Your task to perform on an android device: open app "Speedtest by Ookla" (install if not already installed) and go to login screen Image 0: 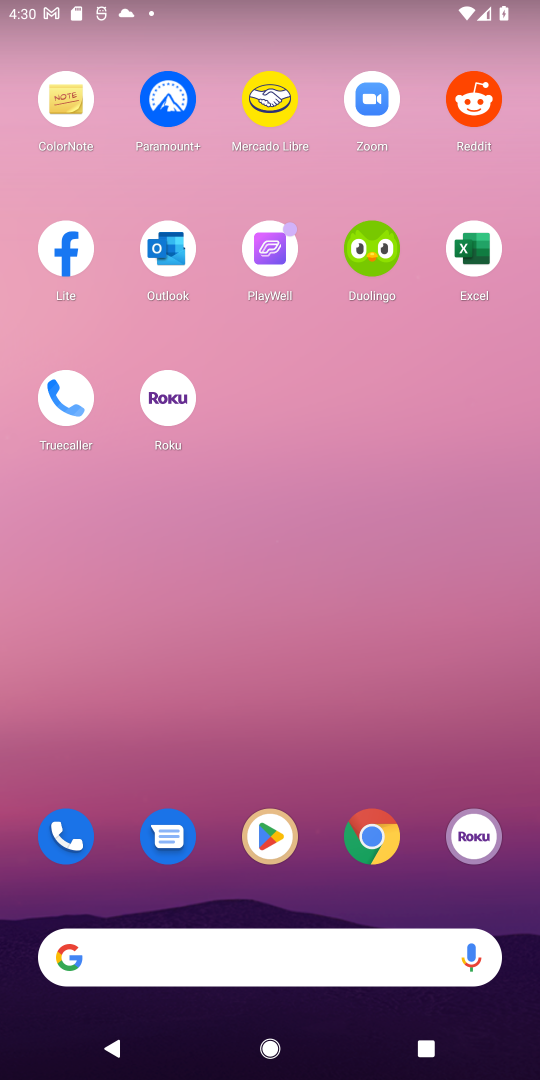
Step 0: drag from (336, 887) to (351, 122)
Your task to perform on an android device: open app "Speedtest by Ookla" (install if not already installed) and go to login screen Image 1: 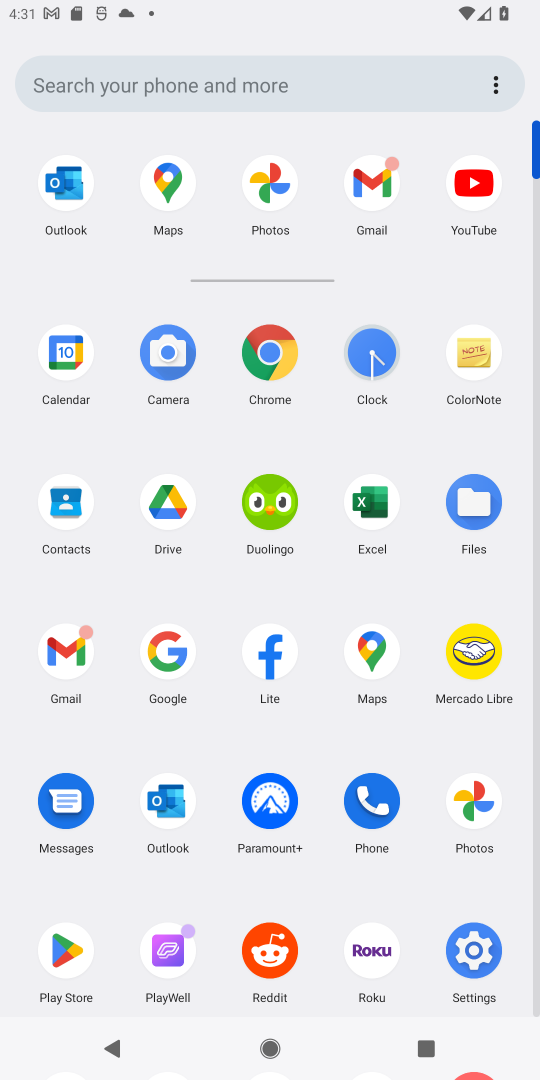
Step 1: click (54, 936)
Your task to perform on an android device: open app "Speedtest by Ookla" (install if not already installed) and go to login screen Image 2: 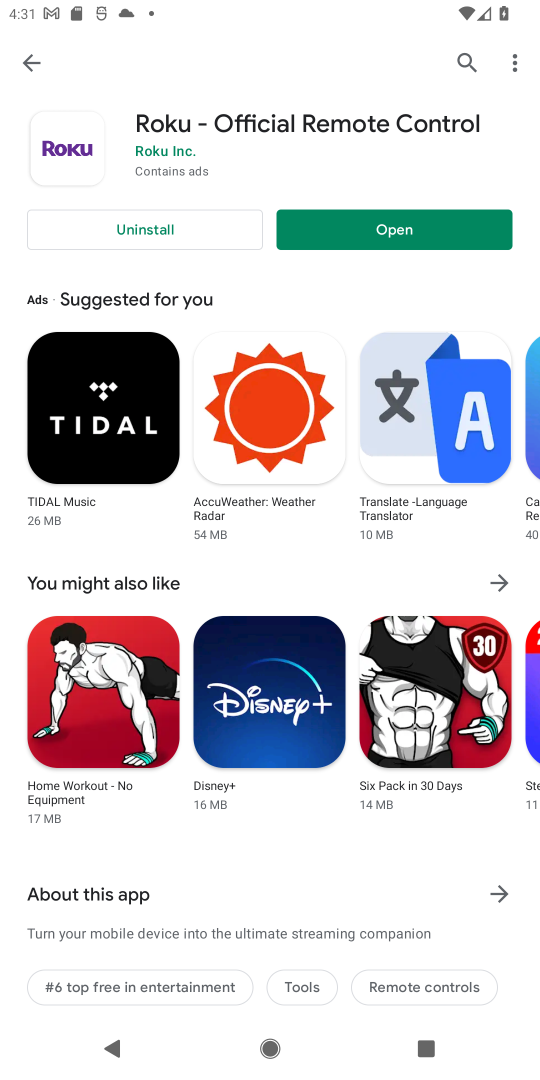
Step 2: press back button
Your task to perform on an android device: open app "Speedtest by Ookla" (install if not already installed) and go to login screen Image 3: 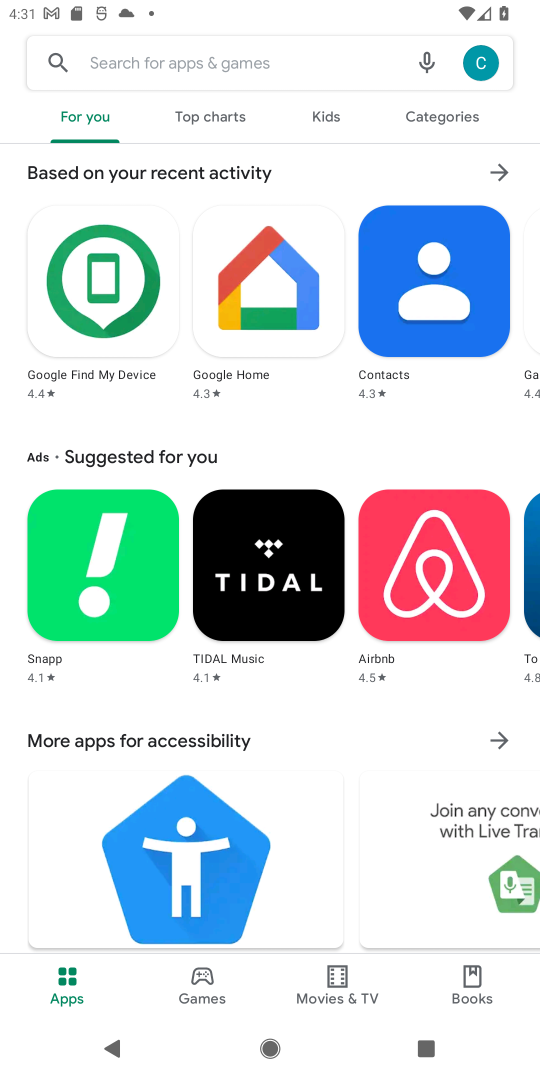
Step 3: click (215, 50)
Your task to perform on an android device: open app "Speedtest by Ookla" (install if not already installed) and go to login screen Image 4: 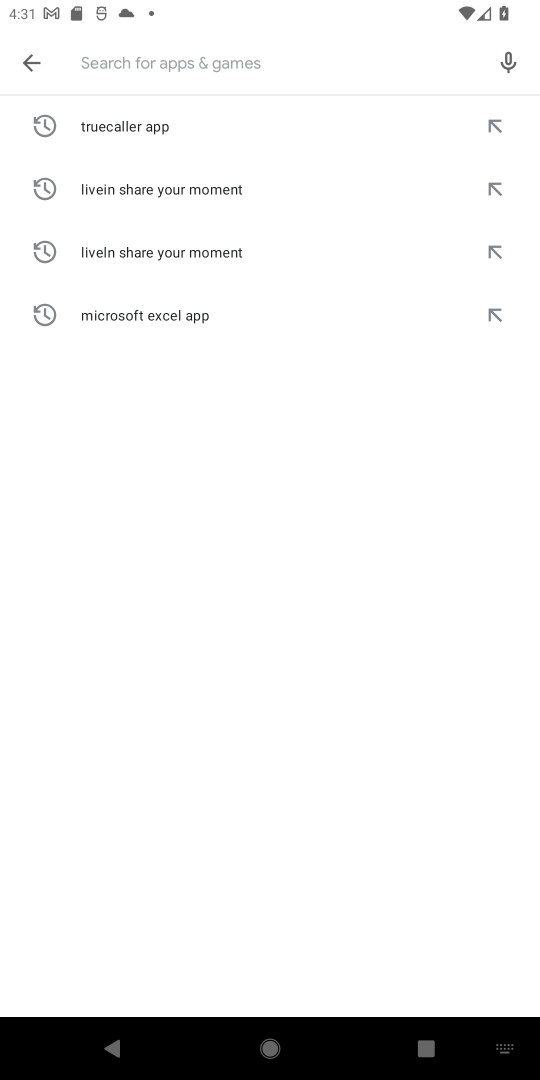
Step 4: click (372, 65)
Your task to perform on an android device: open app "Speedtest by Ookla" (install if not already installed) and go to login screen Image 5: 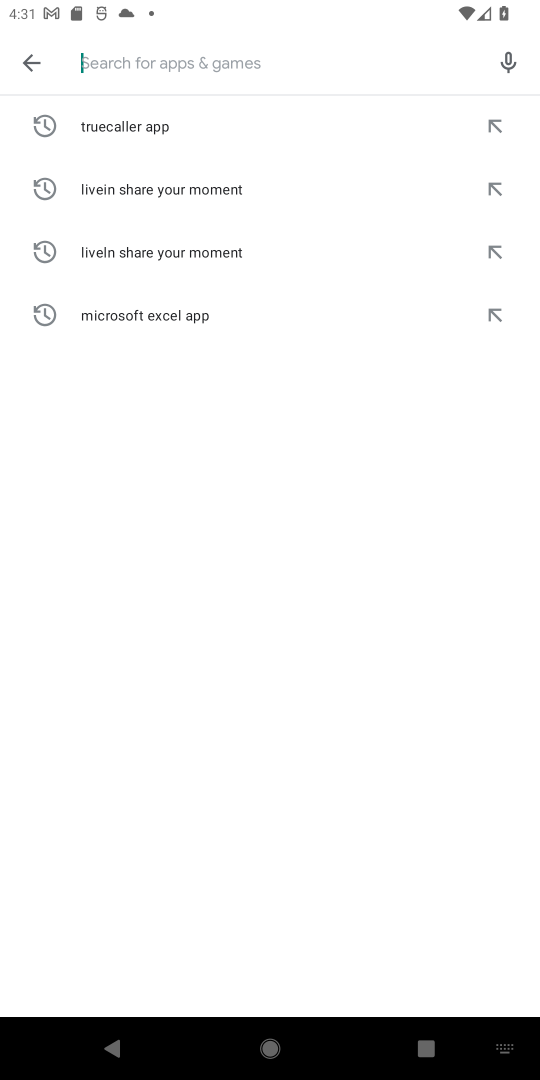
Step 5: type "Speedtest by Ookla "
Your task to perform on an android device: open app "Speedtest by Ookla" (install if not already installed) and go to login screen Image 6: 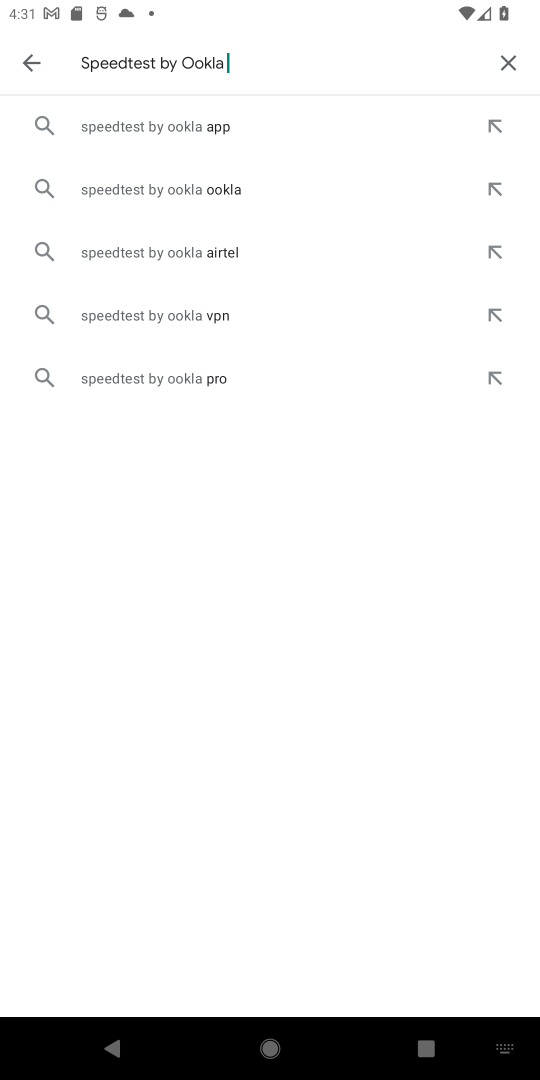
Step 6: click (146, 119)
Your task to perform on an android device: open app "Speedtest by Ookla" (install if not already installed) and go to login screen Image 7: 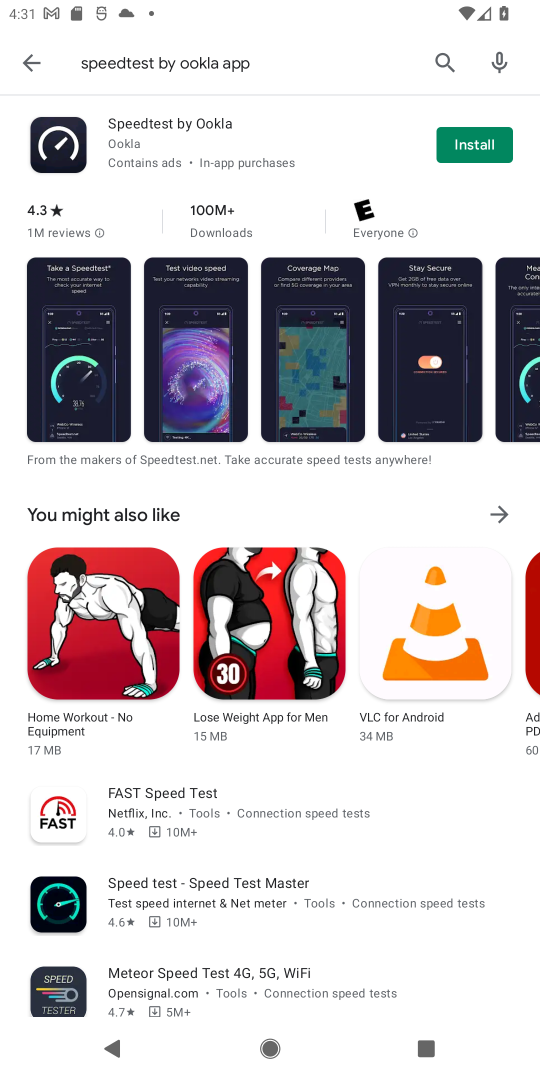
Step 7: click (450, 143)
Your task to perform on an android device: open app "Speedtest by Ookla" (install if not already installed) and go to login screen Image 8: 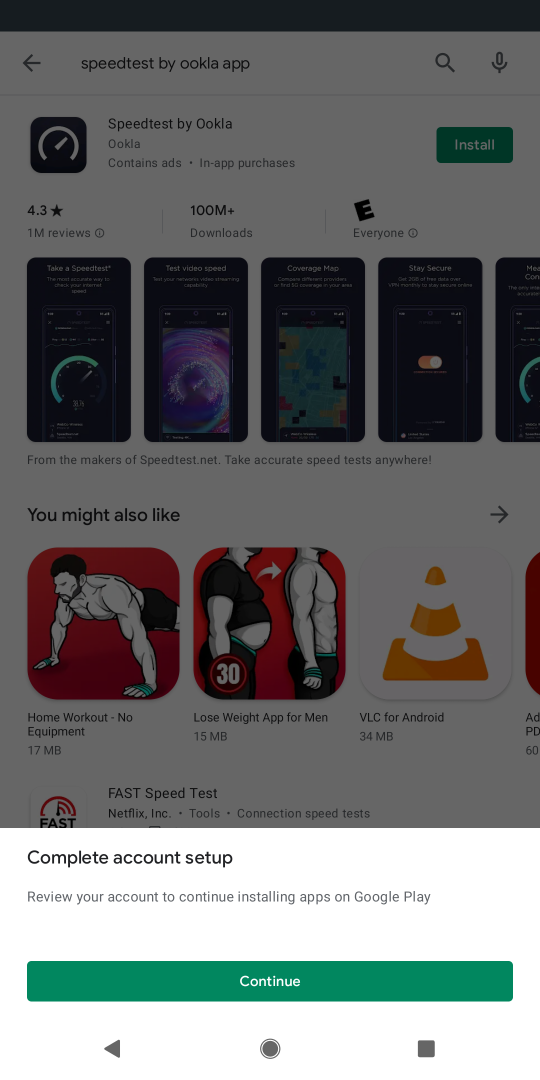
Step 8: click (240, 983)
Your task to perform on an android device: open app "Speedtest by Ookla" (install if not already installed) and go to login screen Image 9: 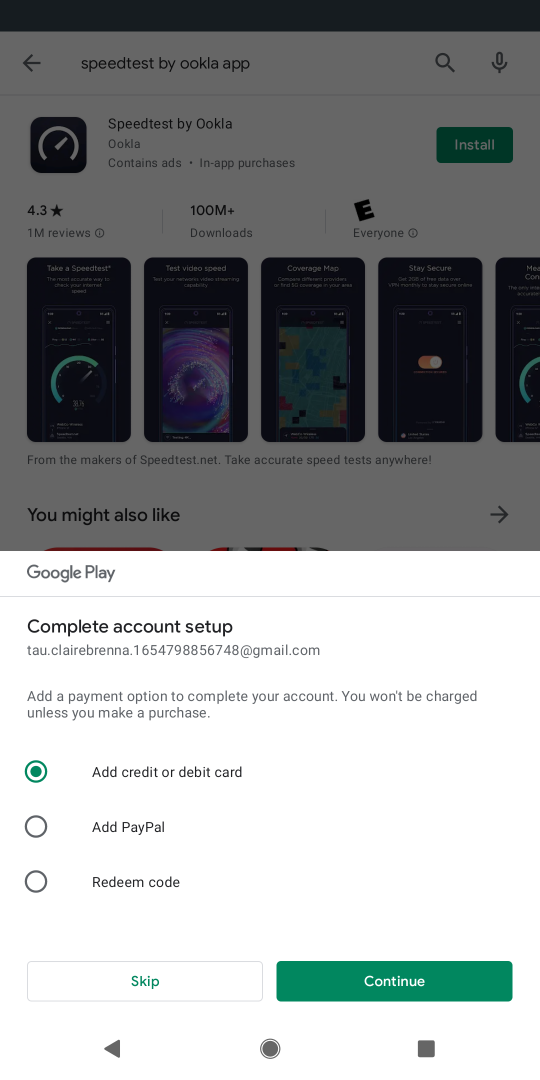
Step 9: task complete